Your task to perform on an android device: install app "LiveIn - Share Your Moment" Image 0: 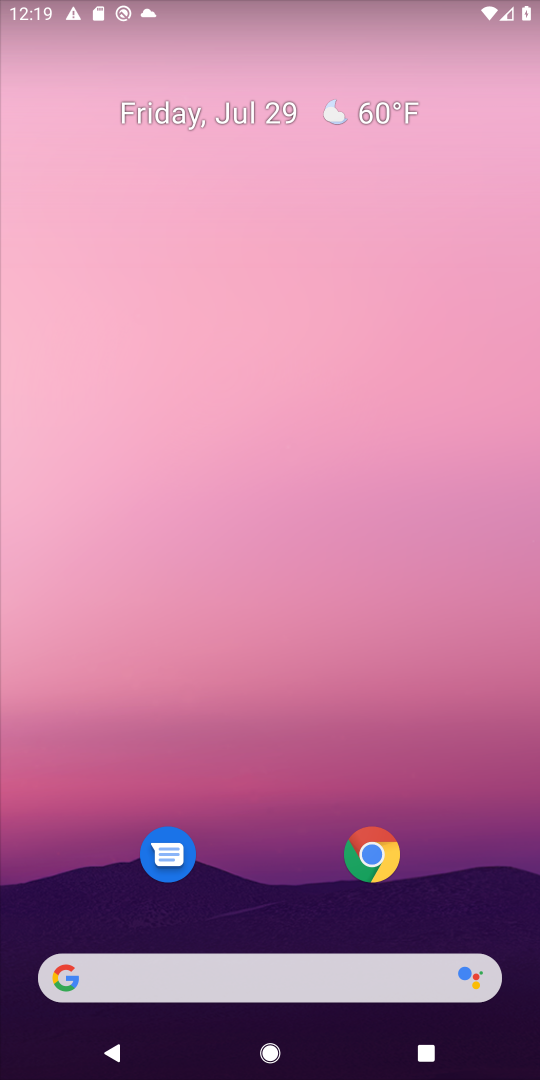
Step 0: drag from (272, 833) to (285, 105)
Your task to perform on an android device: install app "LiveIn - Share Your Moment" Image 1: 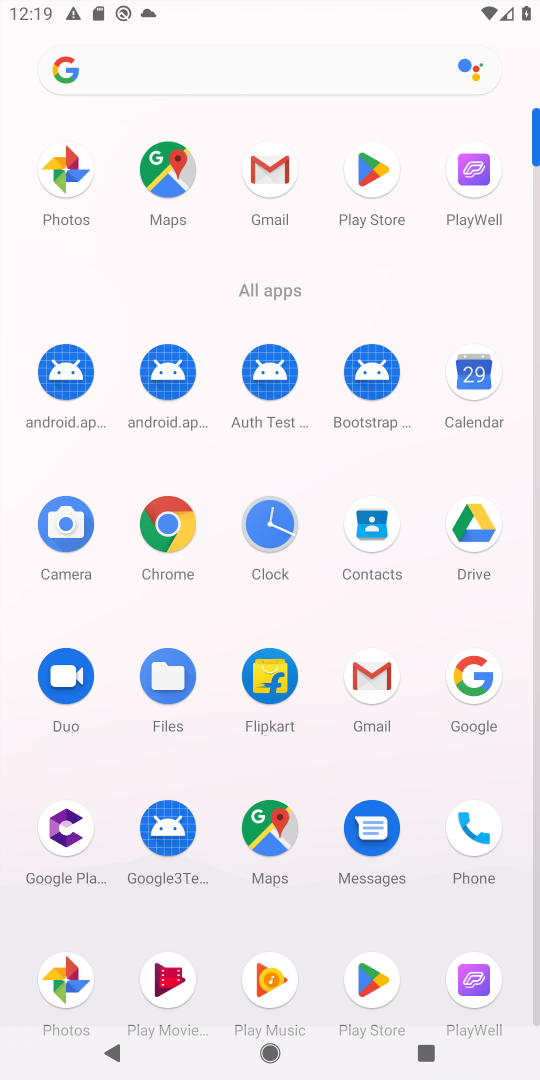
Step 1: click (381, 184)
Your task to perform on an android device: install app "LiveIn - Share Your Moment" Image 2: 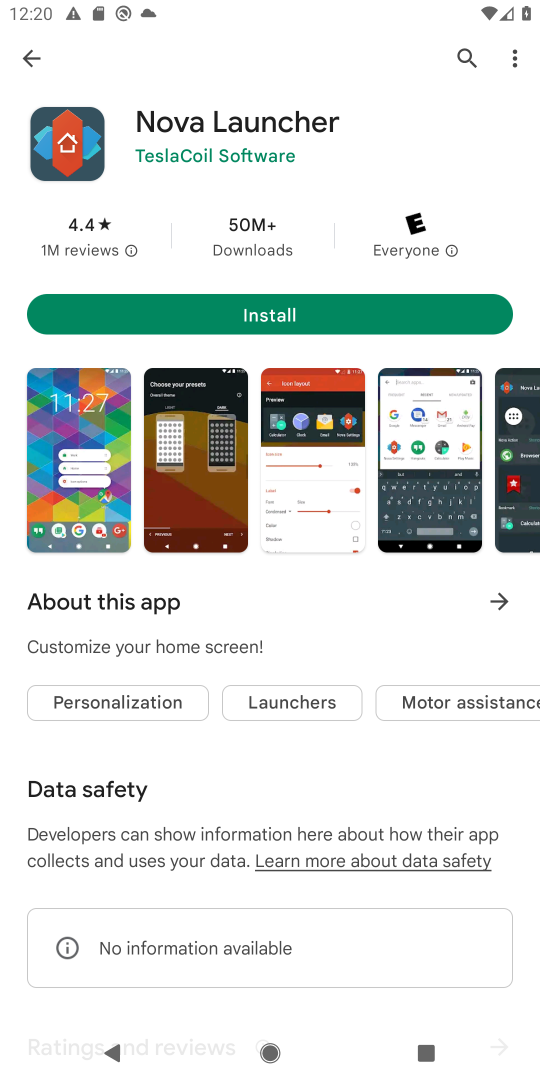
Step 2: click (460, 57)
Your task to perform on an android device: install app "LiveIn - Share Your Moment" Image 3: 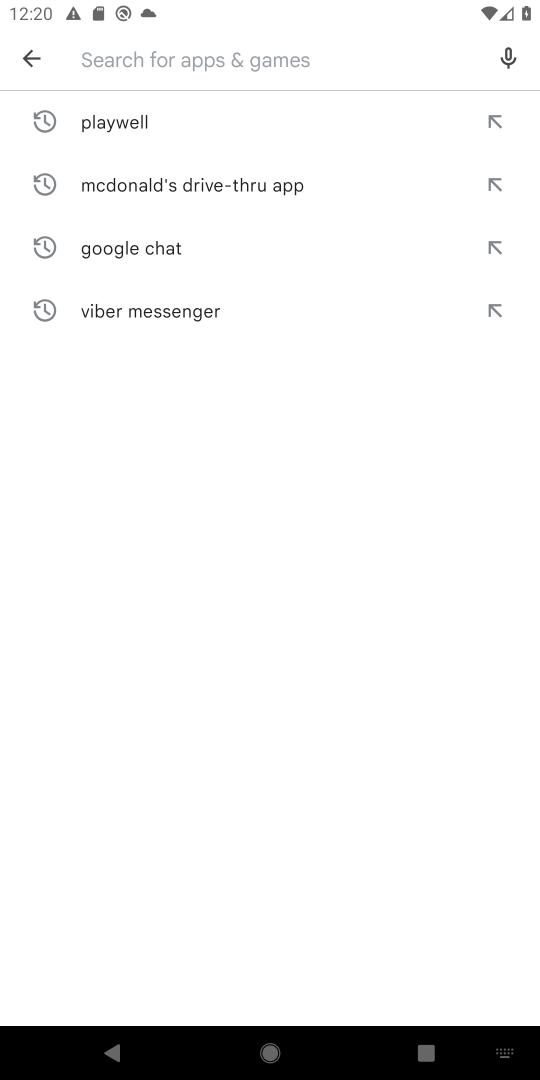
Step 3: type "LiveIn - Share Your Moment"
Your task to perform on an android device: install app "LiveIn - Share Your Moment" Image 4: 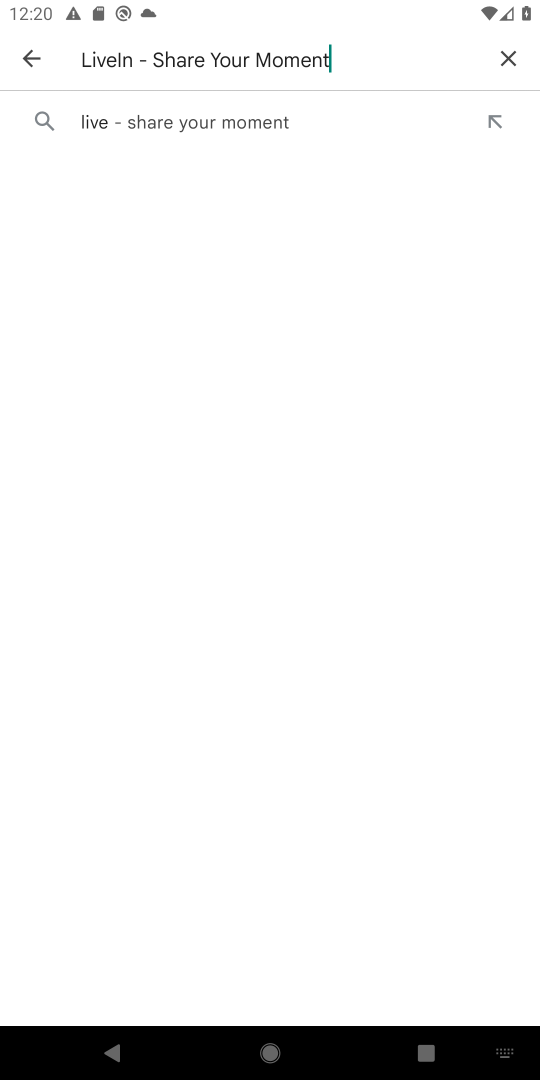
Step 4: click (175, 121)
Your task to perform on an android device: install app "LiveIn - Share Your Moment" Image 5: 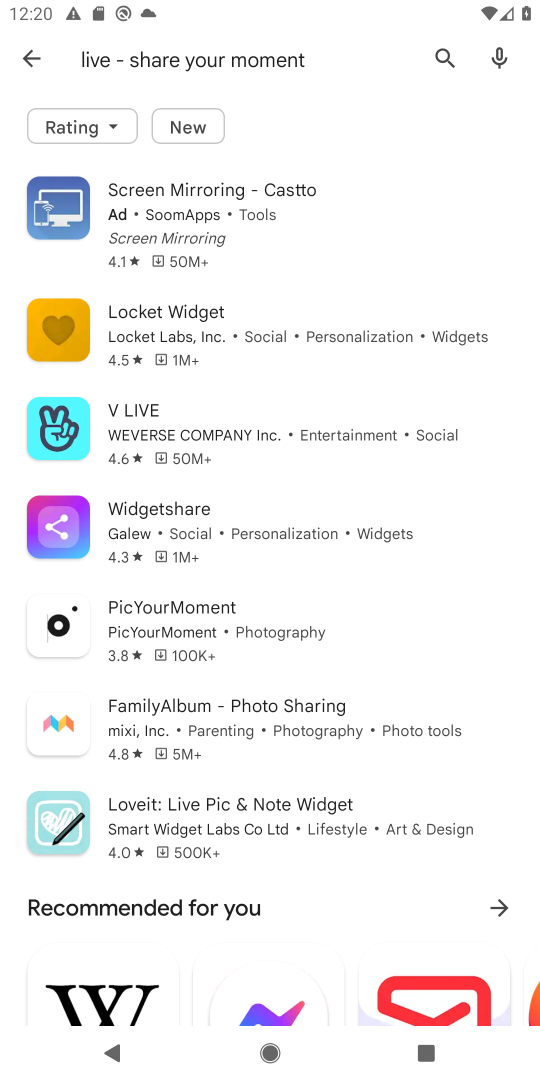
Step 5: task complete